Your task to perform on an android device: delete the emails in spam in the gmail app Image 0: 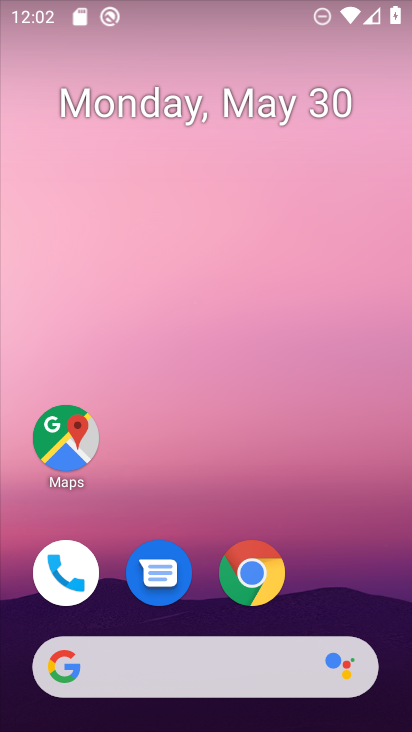
Step 0: drag from (381, 598) to (365, 121)
Your task to perform on an android device: delete the emails in spam in the gmail app Image 1: 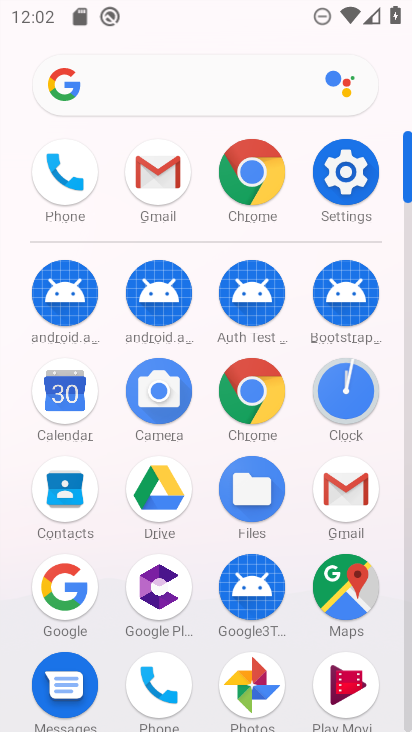
Step 1: click (160, 178)
Your task to perform on an android device: delete the emails in spam in the gmail app Image 2: 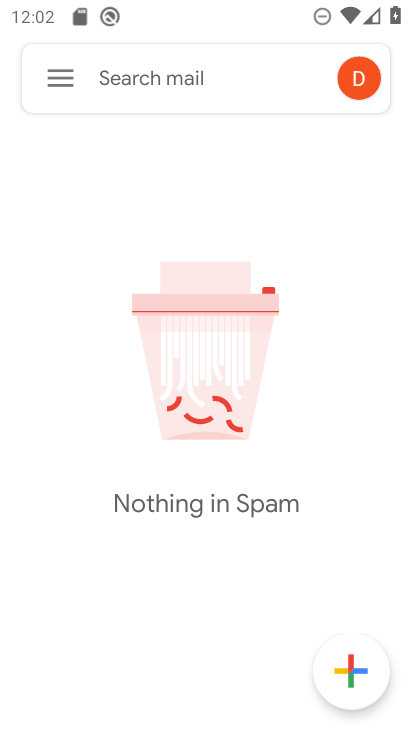
Step 2: click (60, 72)
Your task to perform on an android device: delete the emails in spam in the gmail app Image 3: 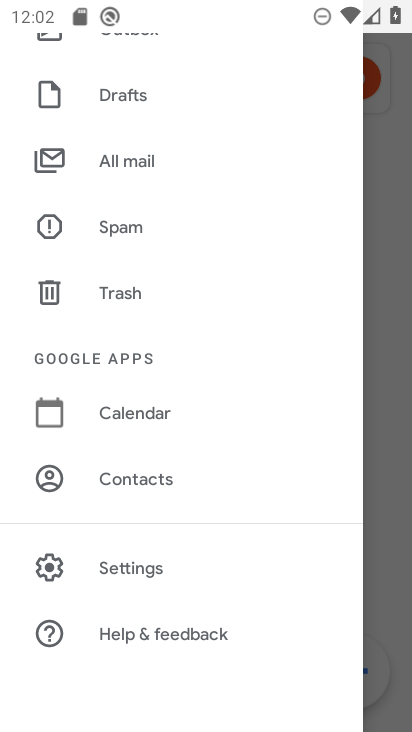
Step 3: click (123, 232)
Your task to perform on an android device: delete the emails in spam in the gmail app Image 4: 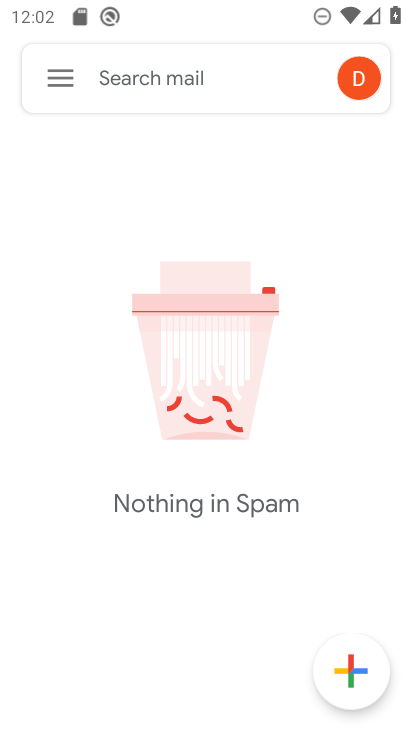
Step 4: task complete